Your task to perform on an android device: open sync settings in chrome Image 0: 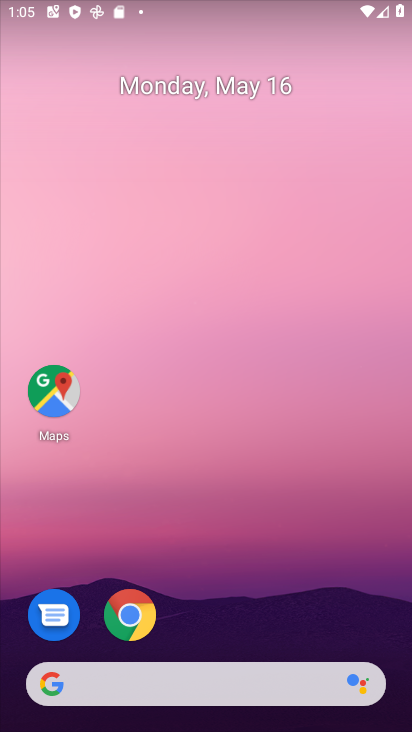
Step 0: drag from (253, 681) to (183, 248)
Your task to perform on an android device: open sync settings in chrome Image 1: 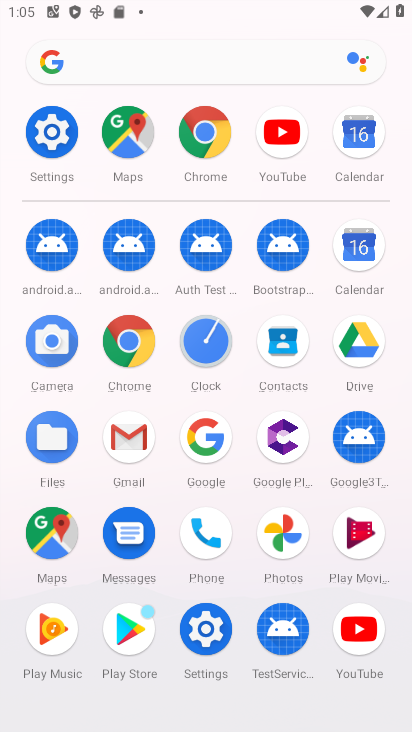
Step 1: click (114, 353)
Your task to perform on an android device: open sync settings in chrome Image 2: 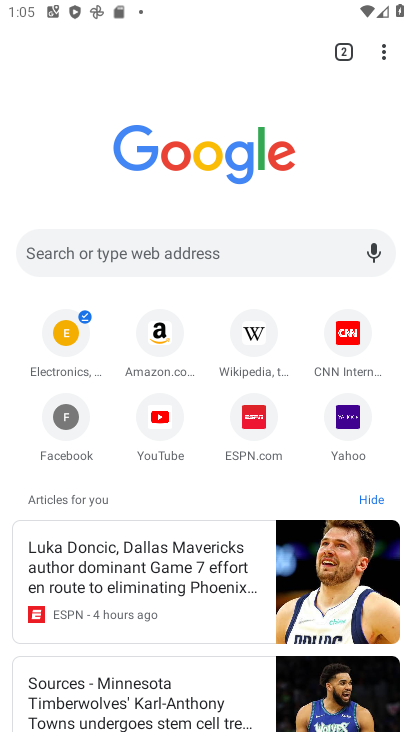
Step 2: click (385, 53)
Your task to perform on an android device: open sync settings in chrome Image 3: 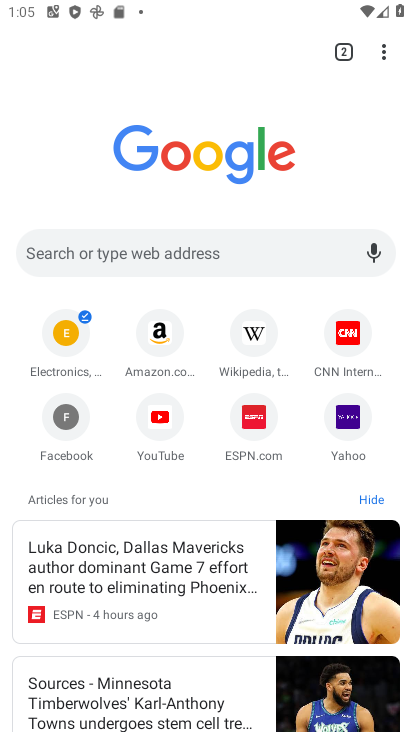
Step 3: drag from (385, 39) to (221, 450)
Your task to perform on an android device: open sync settings in chrome Image 4: 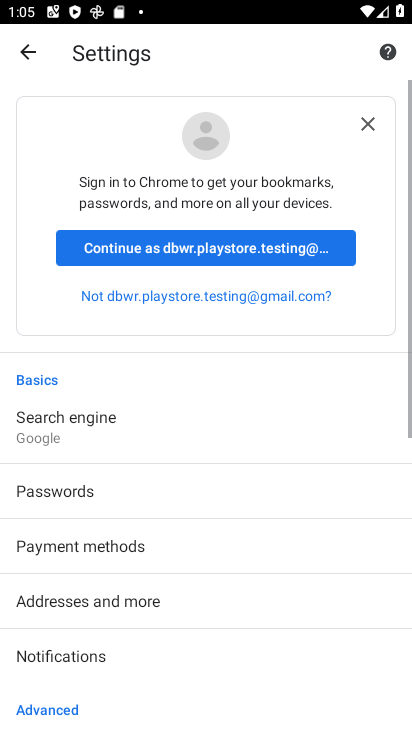
Step 4: drag from (225, 548) to (222, 122)
Your task to perform on an android device: open sync settings in chrome Image 5: 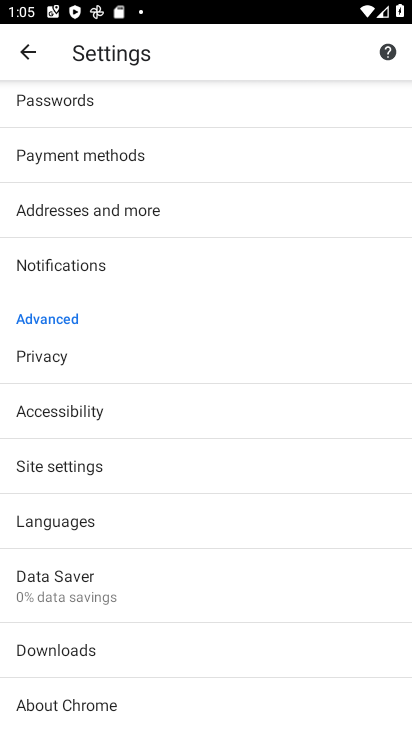
Step 5: drag from (110, 521) to (130, 428)
Your task to perform on an android device: open sync settings in chrome Image 6: 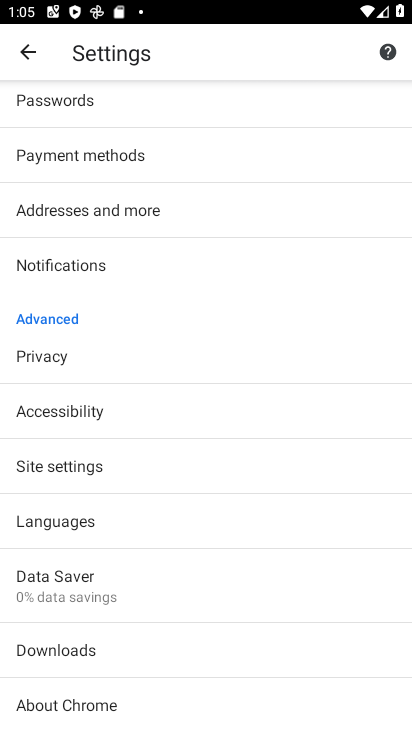
Step 6: click (133, 443)
Your task to perform on an android device: open sync settings in chrome Image 7: 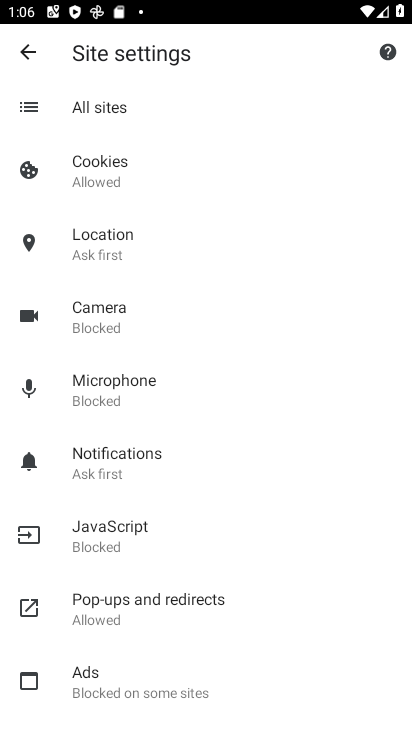
Step 7: click (167, 602)
Your task to perform on an android device: open sync settings in chrome Image 8: 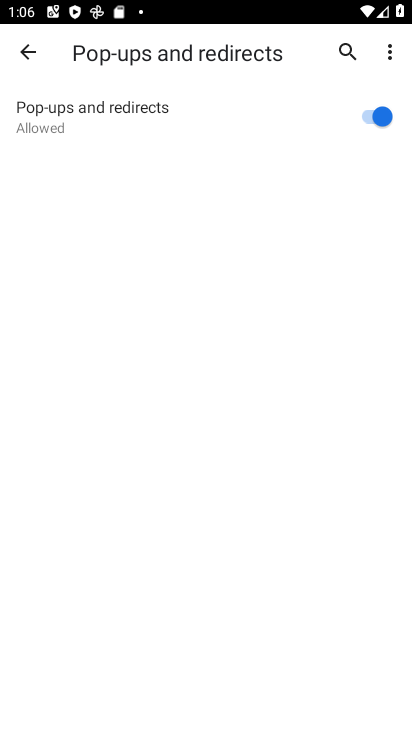
Step 8: press back button
Your task to perform on an android device: open sync settings in chrome Image 9: 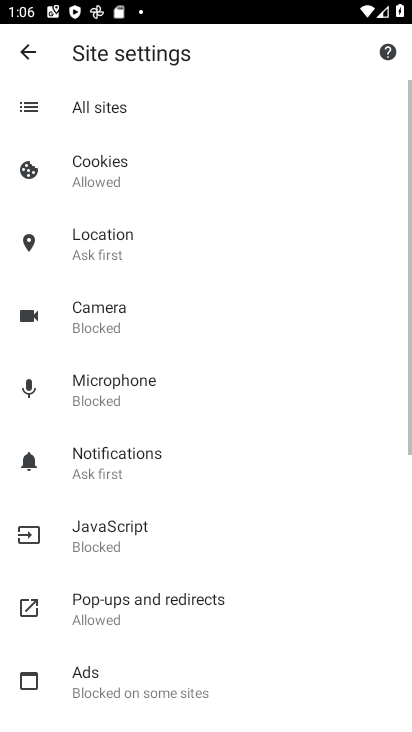
Step 9: drag from (175, 629) to (198, 178)
Your task to perform on an android device: open sync settings in chrome Image 10: 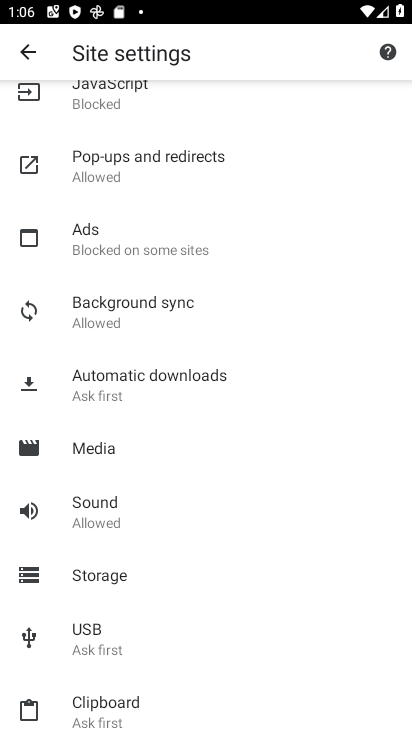
Step 10: click (143, 287)
Your task to perform on an android device: open sync settings in chrome Image 11: 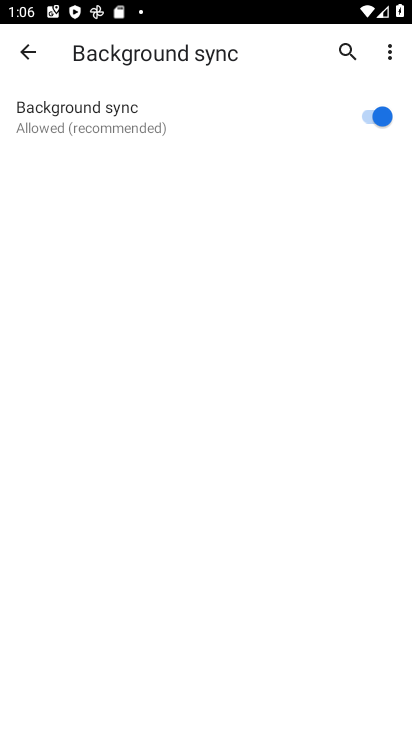
Step 11: task complete